Your task to perform on an android device: check android version Image 0: 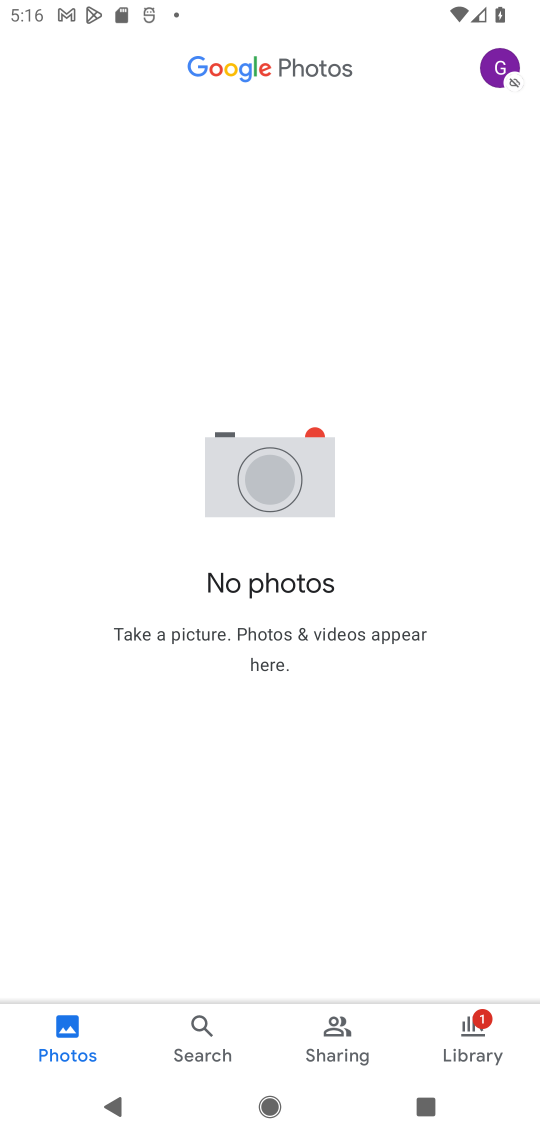
Step 0: press home button
Your task to perform on an android device: check android version Image 1: 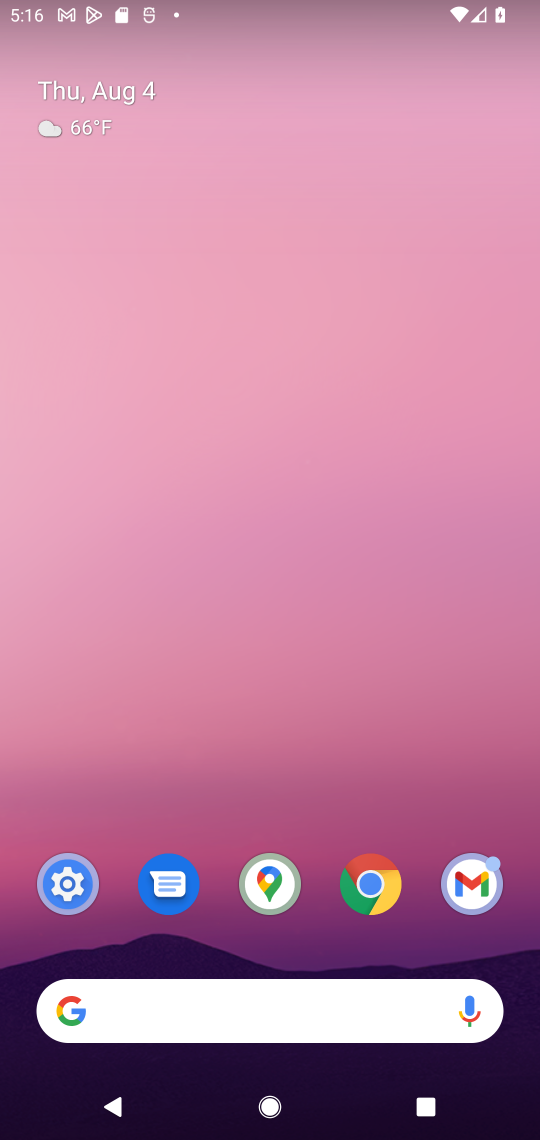
Step 1: click (61, 885)
Your task to perform on an android device: check android version Image 2: 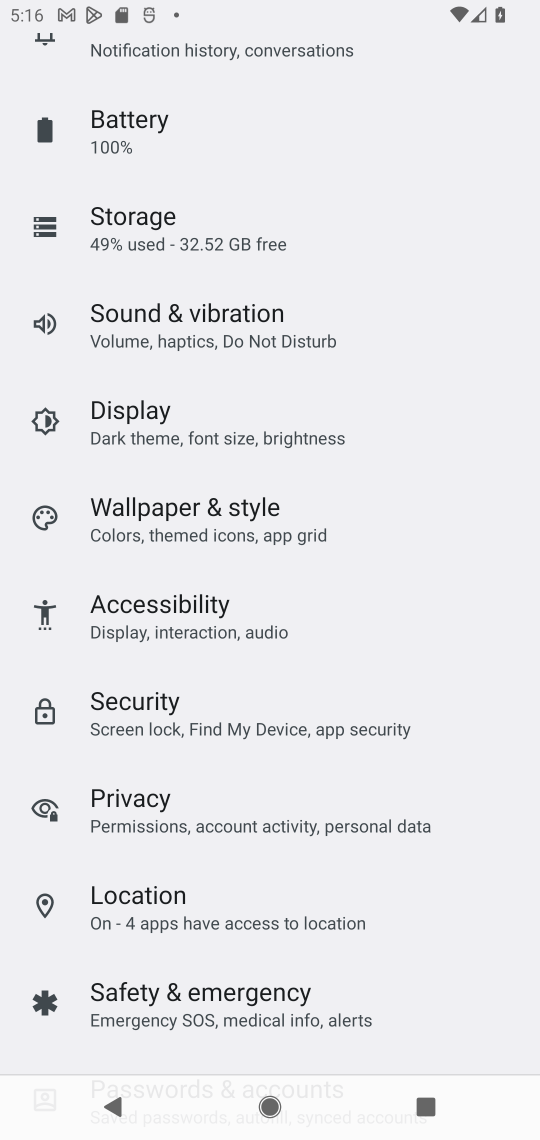
Step 2: drag from (275, 1028) to (293, 431)
Your task to perform on an android device: check android version Image 3: 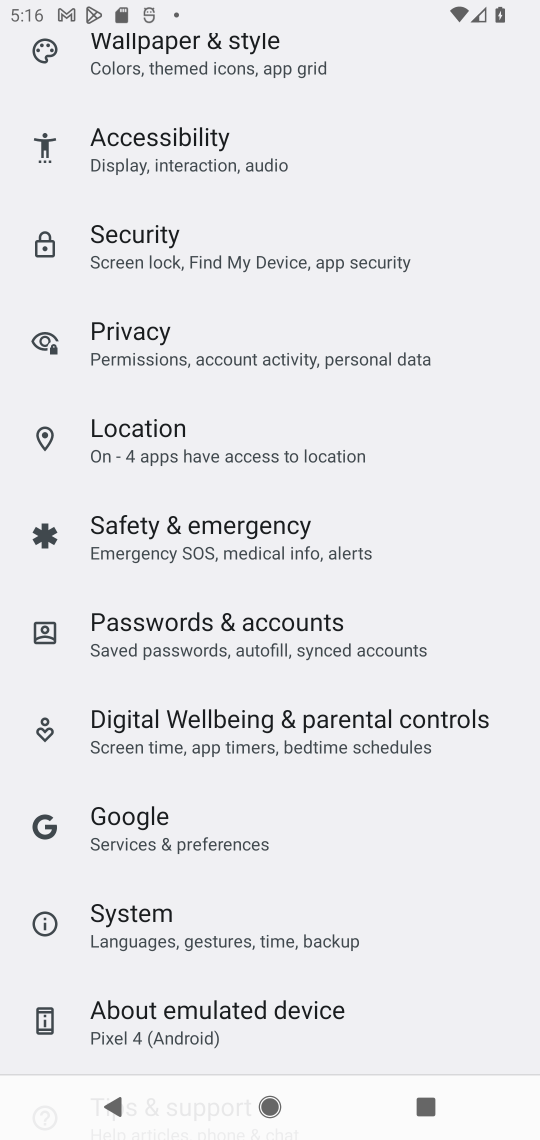
Step 3: click (288, 998)
Your task to perform on an android device: check android version Image 4: 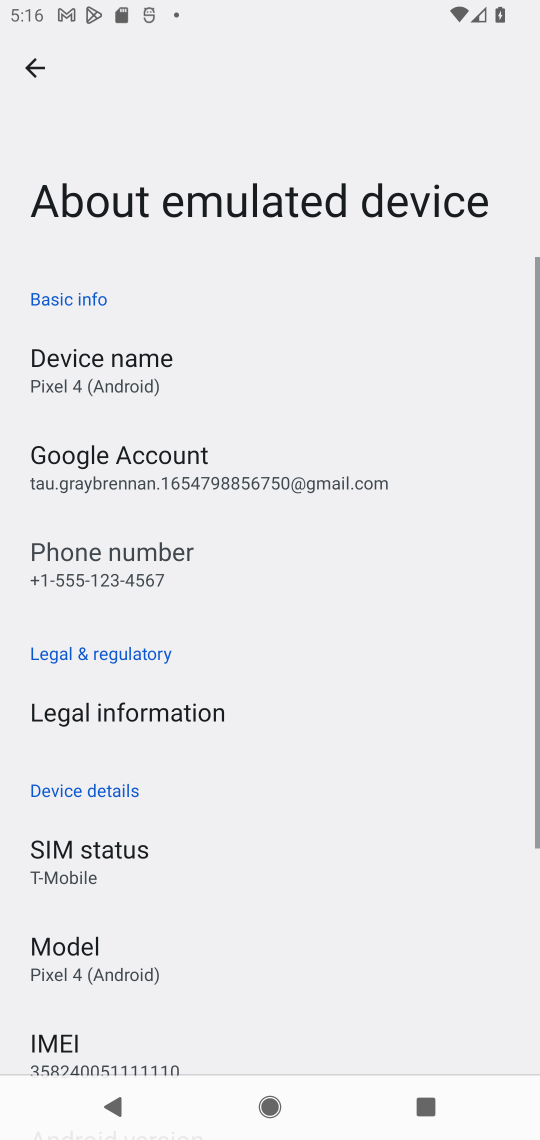
Step 4: drag from (237, 941) to (274, 121)
Your task to perform on an android device: check android version Image 5: 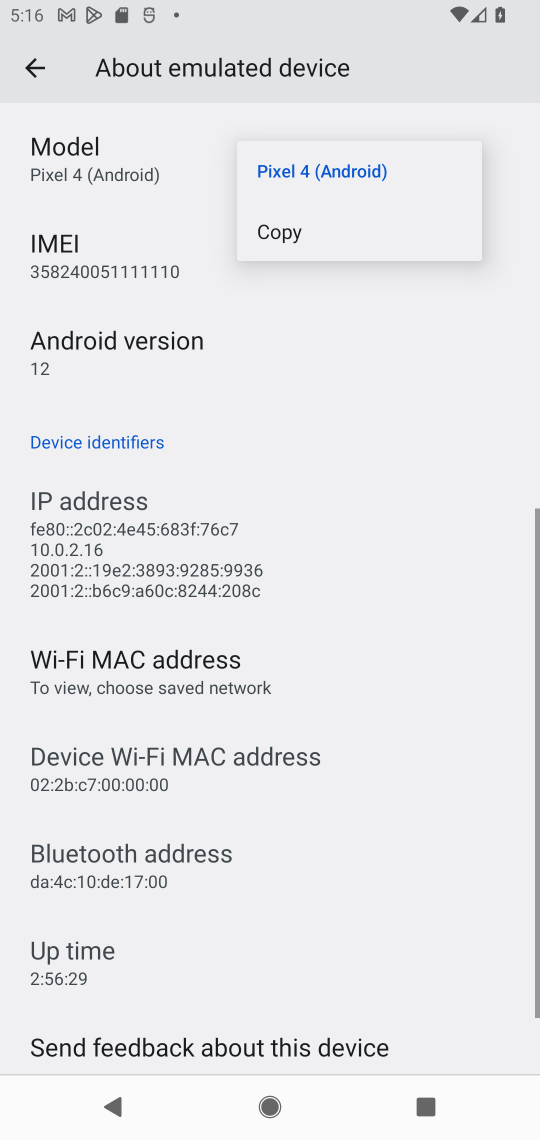
Step 5: click (177, 371)
Your task to perform on an android device: check android version Image 6: 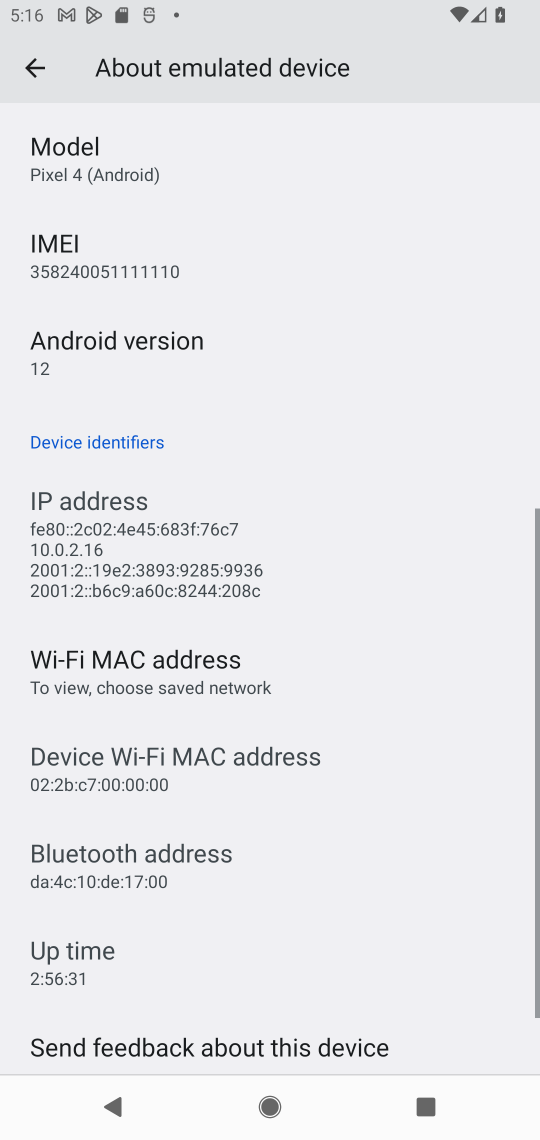
Step 6: click (177, 371)
Your task to perform on an android device: check android version Image 7: 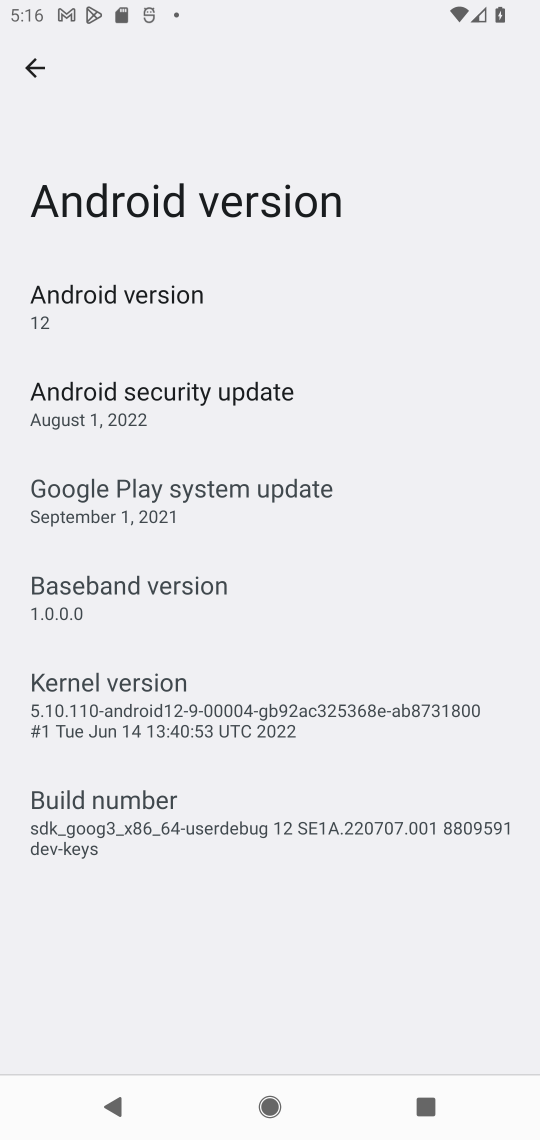
Step 7: task complete